Your task to perform on an android device: Go to eBay Image 0: 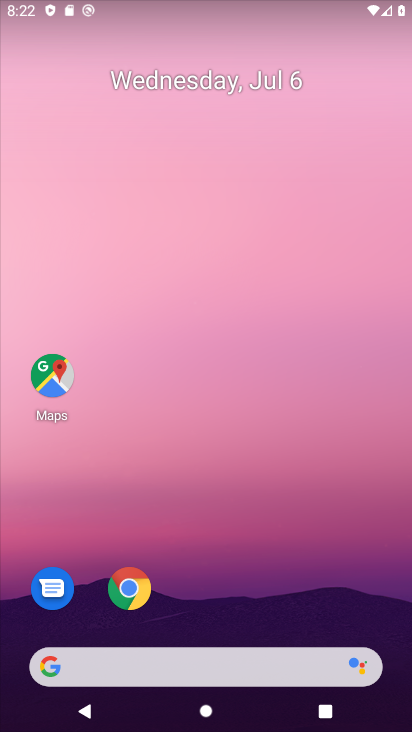
Step 0: click (138, 593)
Your task to perform on an android device: Go to eBay Image 1: 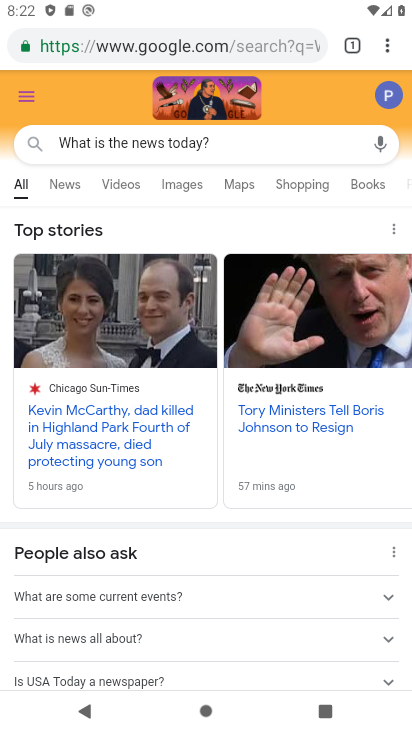
Step 1: click (236, 40)
Your task to perform on an android device: Go to eBay Image 2: 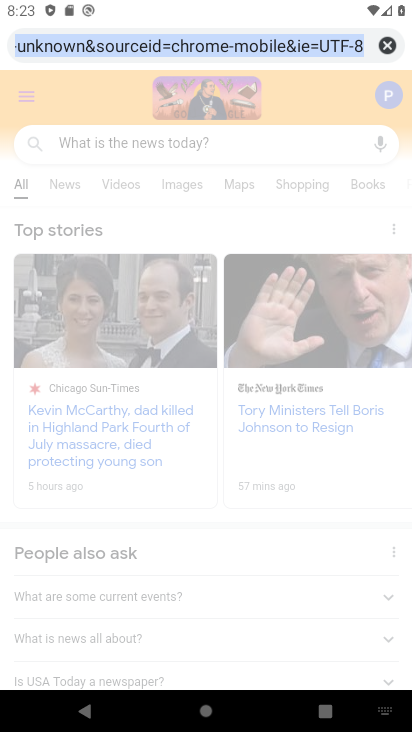
Step 2: type "eBay"
Your task to perform on an android device: Go to eBay Image 3: 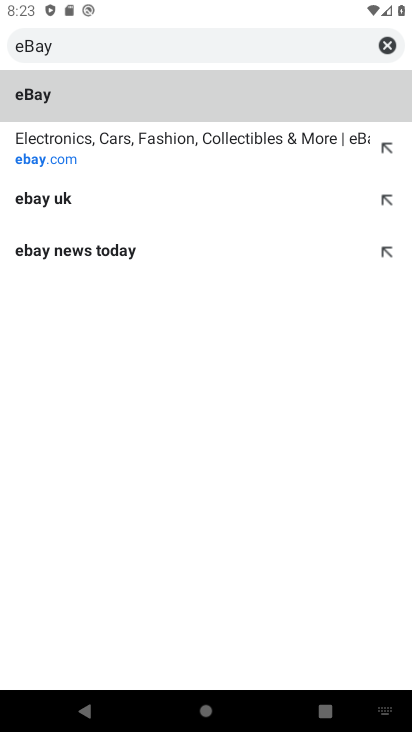
Step 3: click (228, 158)
Your task to perform on an android device: Go to eBay Image 4: 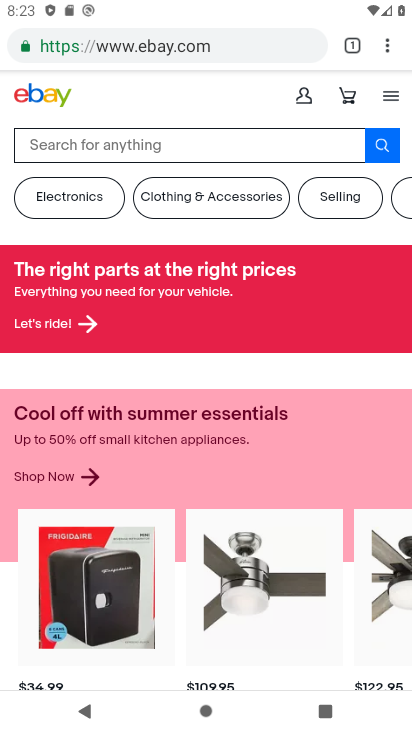
Step 4: task complete